Your task to perform on an android device: Open Amazon Image 0: 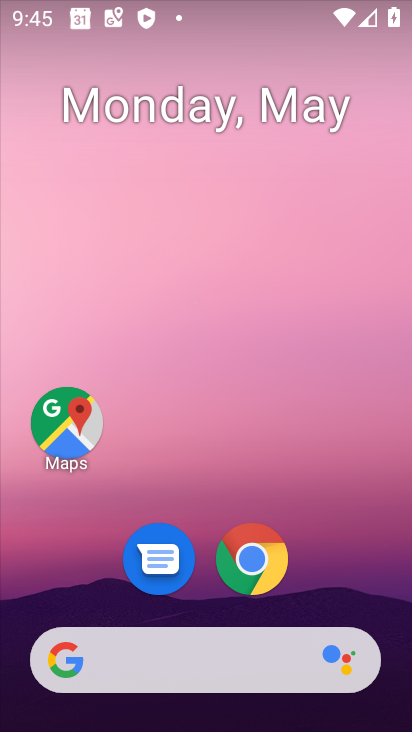
Step 0: click (265, 566)
Your task to perform on an android device: Open Amazon Image 1: 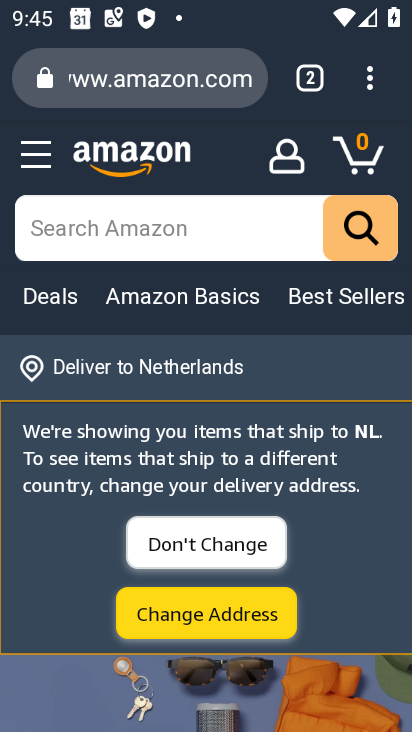
Step 1: task complete